Your task to perform on an android device: Open Reddit.com Image 0: 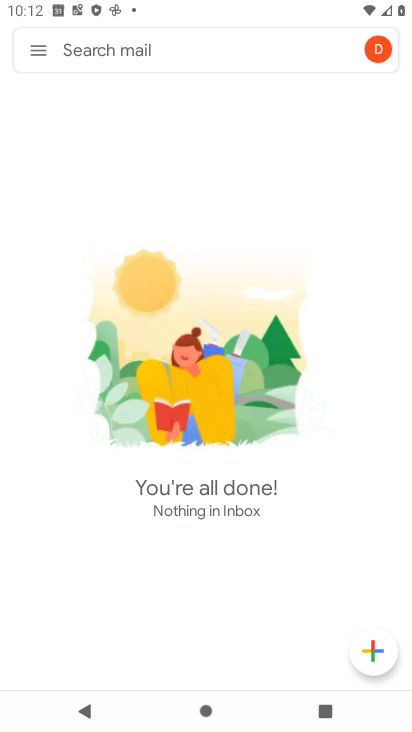
Step 0: press home button
Your task to perform on an android device: Open Reddit.com Image 1: 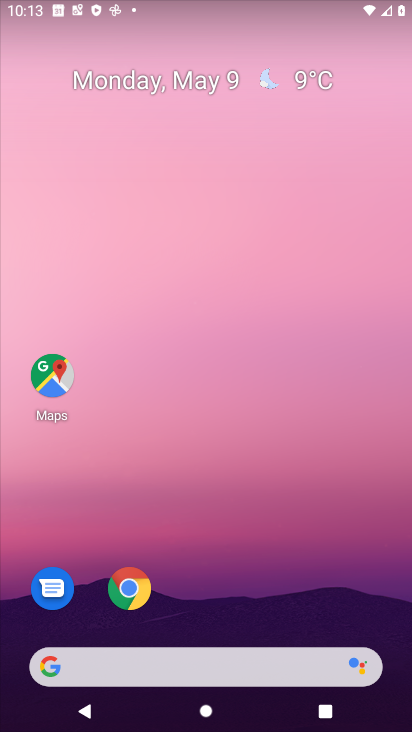
Step 1: click (130, 595)
Your task to perform on an android device: Open Reddit.com Image 2: 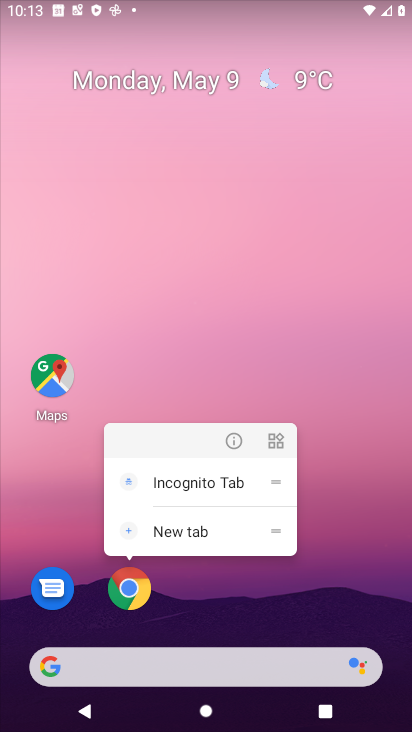
Step 2: click (139, 587)
Your task to perform on an android device: Open Reddit.com Image 3: 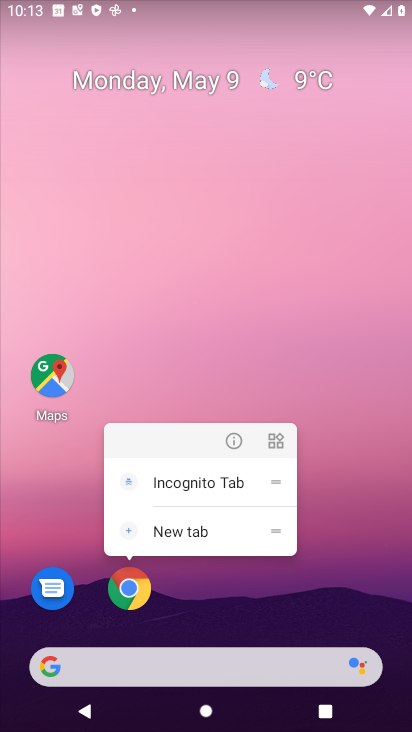
Step 3: click (121, 594)
Your task to perform on an android device: Open Reddit.com Image 4: 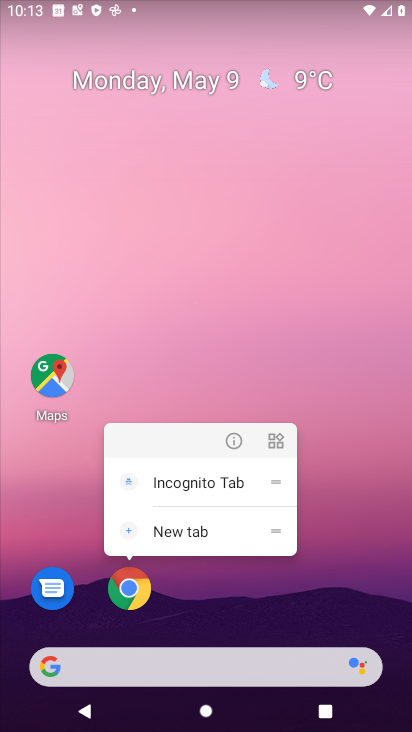
Step 4: click (127, 592)
Your task to perform on an android device: Open Reddit.com Image 5: 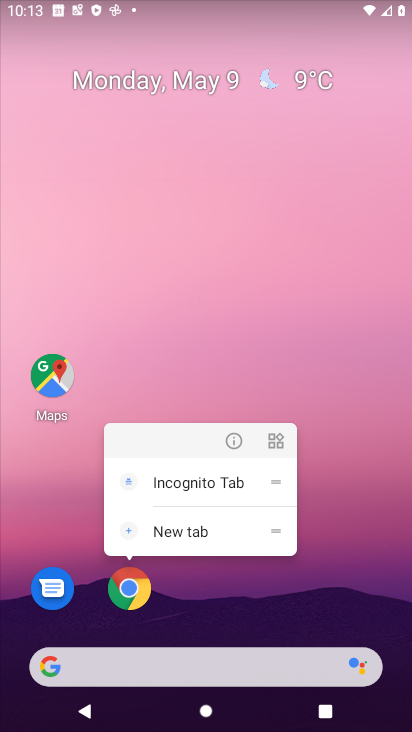
Step 5: click (135, 597)
Your task to perform on an android device: Open Reddit.com Image 6: 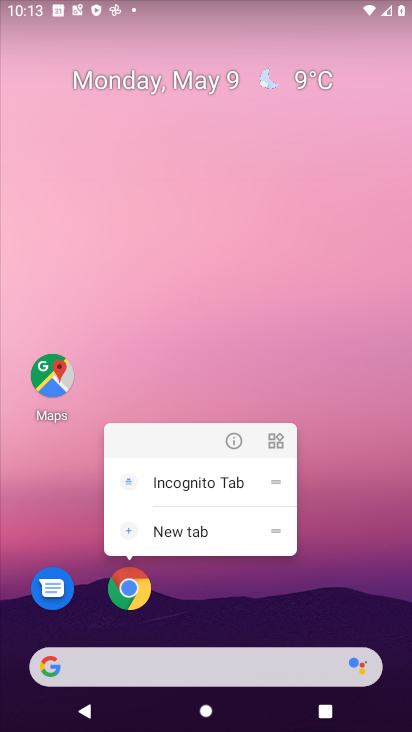
Step 6: drag from (134, 662) to (333, 102)
Your task to perform on an android device: Open Reddit.com Image 7: 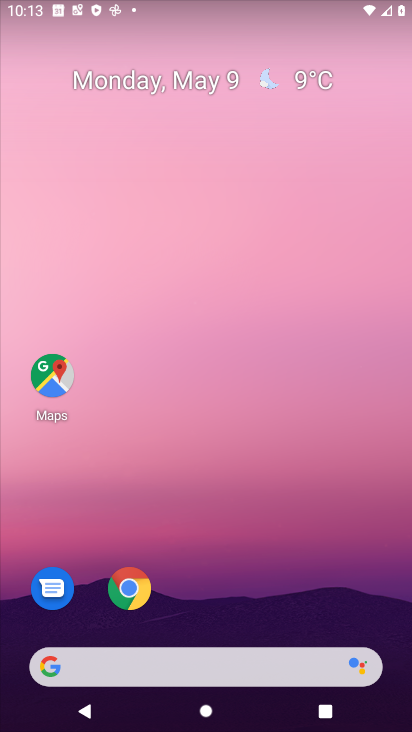
Step 7: drag from (168, 660) to (318, 66)
Your task to perform on an android device: Open Reddit.com Image 8: 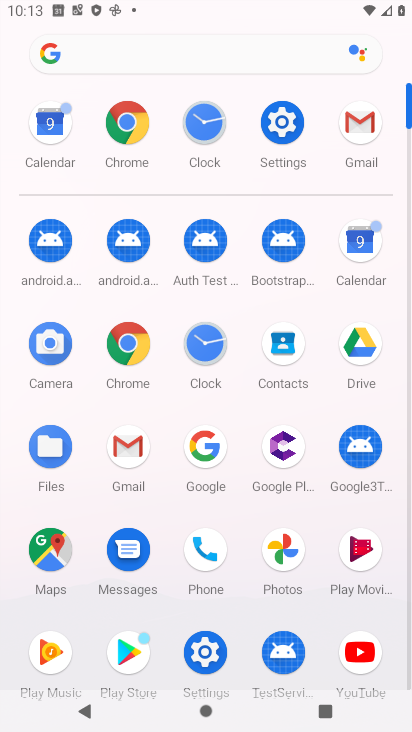
Step 8: click (123, 125)
Your task to perform on an android device: Open Reddit.com Image 9: 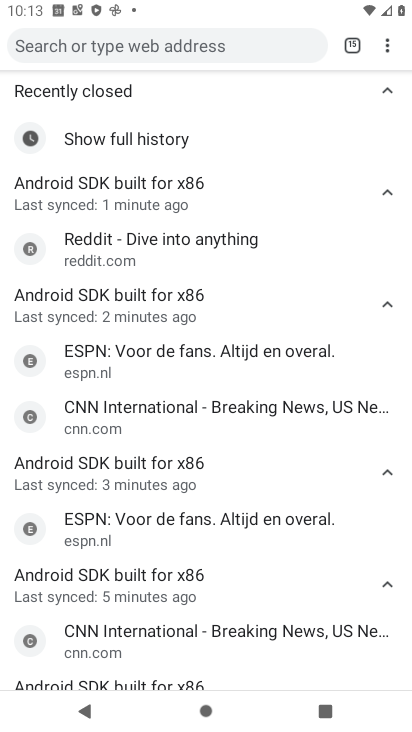
Step 9: drag from (386, 49) to (321, 94)
Your task to perform on an android device: Open Reddit.com Image 10: 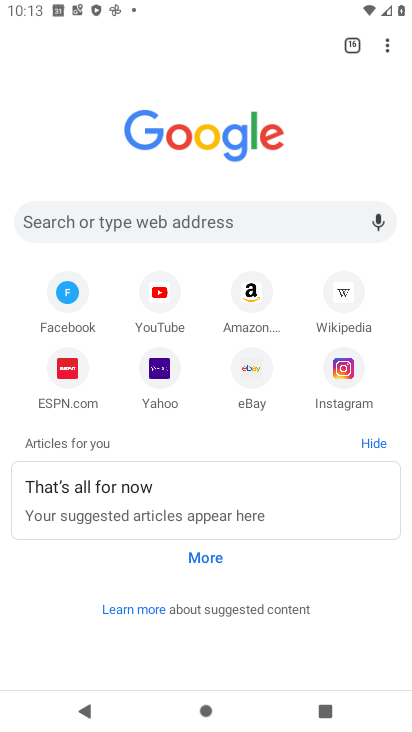
Step 10: click (112, 220)
Your task to perform on an android device: Open Reddit.com Image 11: 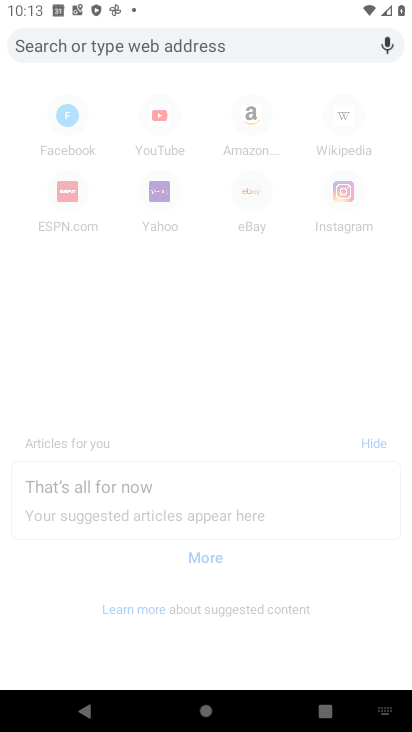
Step 11: type "reddit.com"
Your task to perform on an android device: Open Reddit.com Image 12: 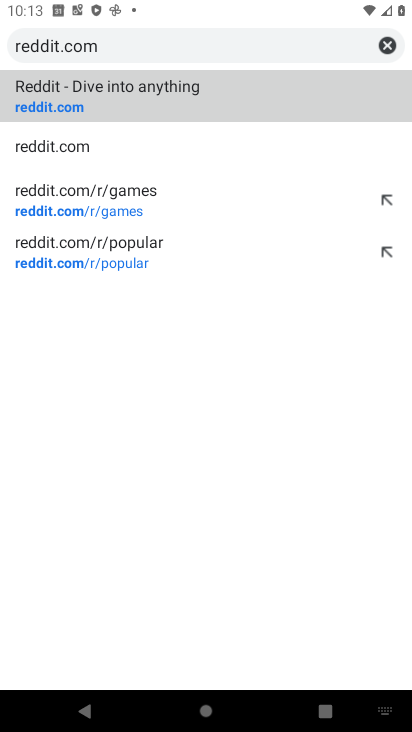
Step 12: click (152, 94)
Your task to perform on an android device: Open Reddit.com Image 13: 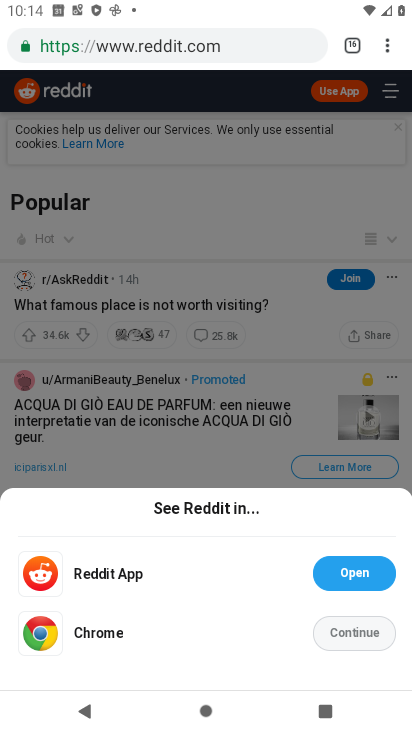
Step 13: task complete